Your task to perform on an android device: Open Google Maps Image 0: 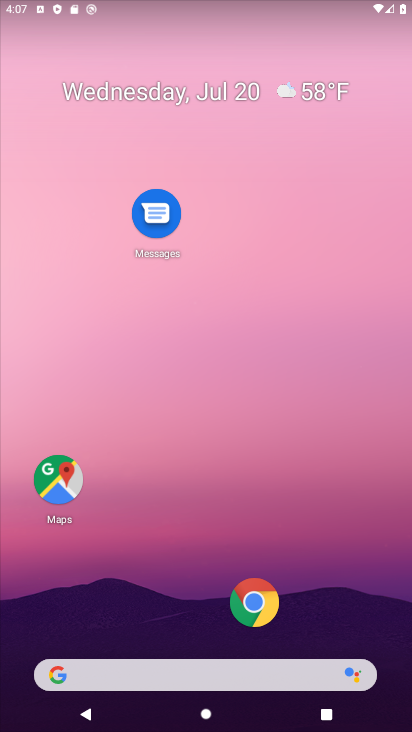
Step 0: click (63, 484)
Your task to perform on an android device: Open Google Maps Image 1: 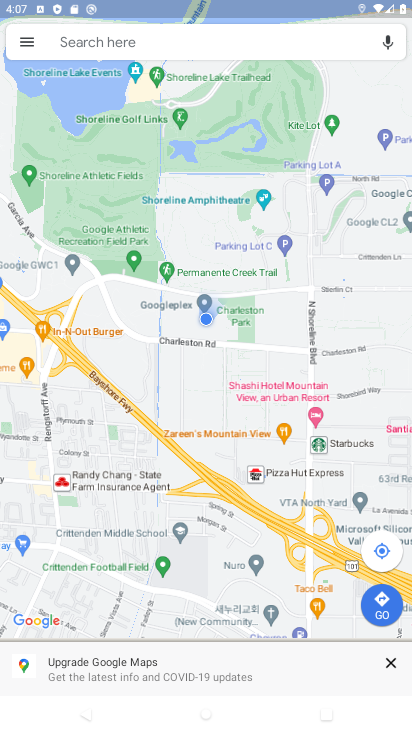
Step 1: task complete